Your task to perform on an android device: toggle notification dots Image 0: 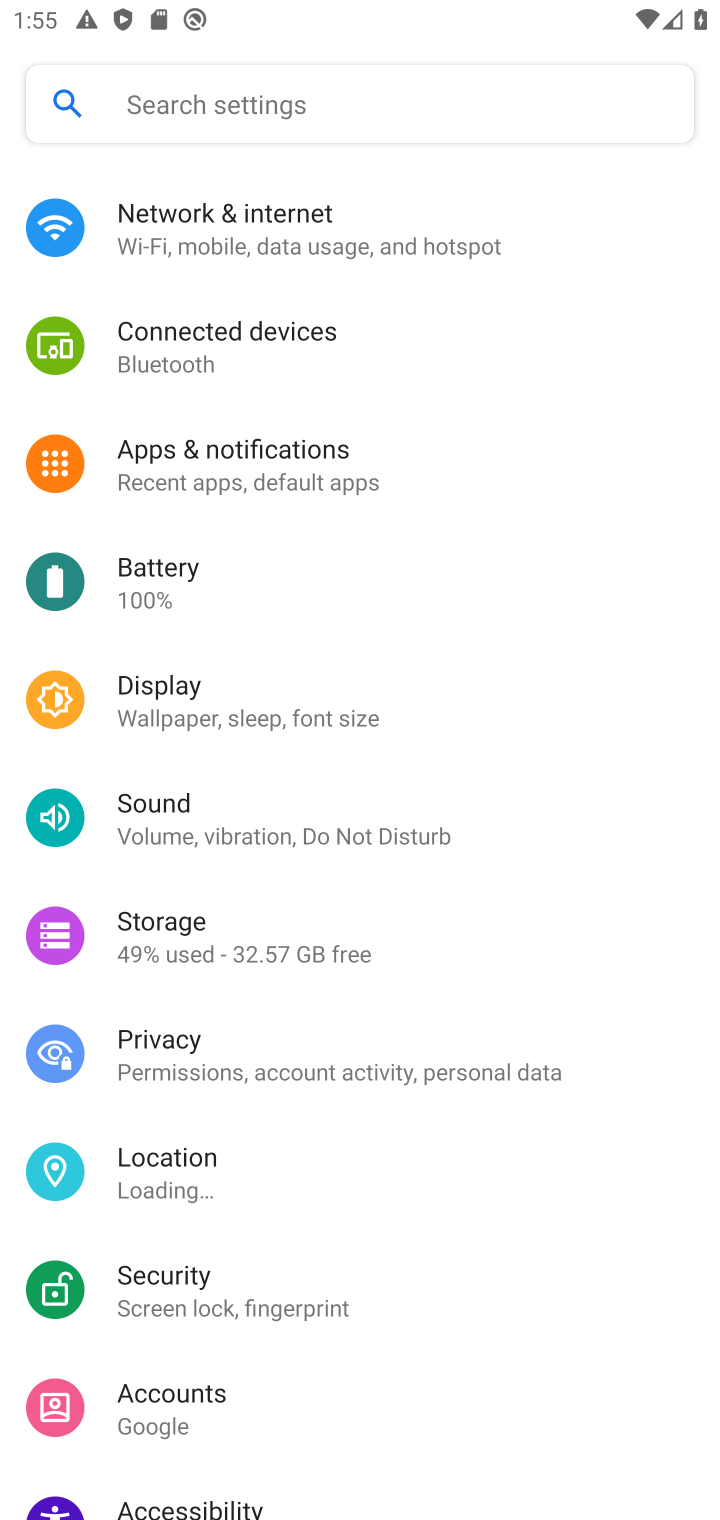
Step 0: press home button
Your task to perform on an android device: toggle notification dots Image 1: 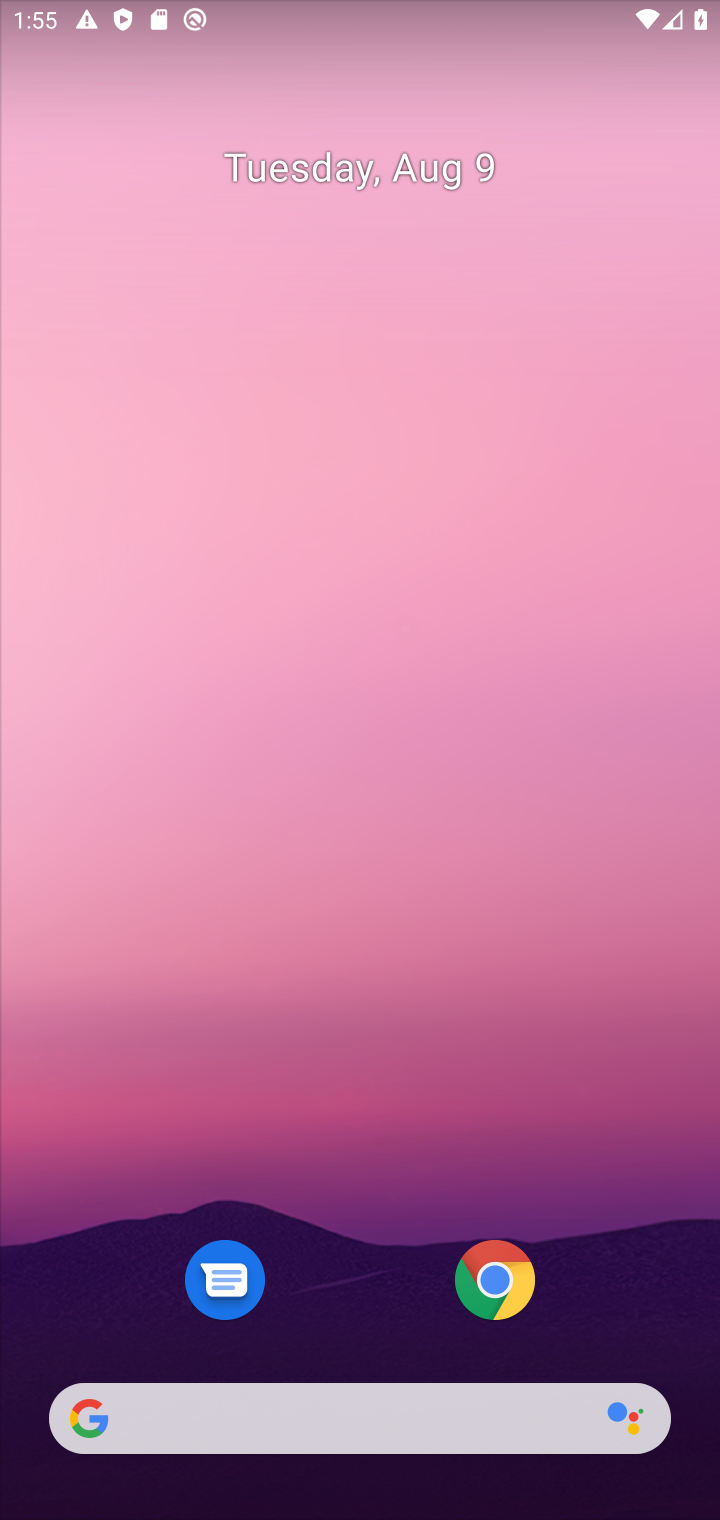
Step 1: drag from (355, 1416) to (438, 153)
Your task to perform on an android device: toggle notification dots Image 2: 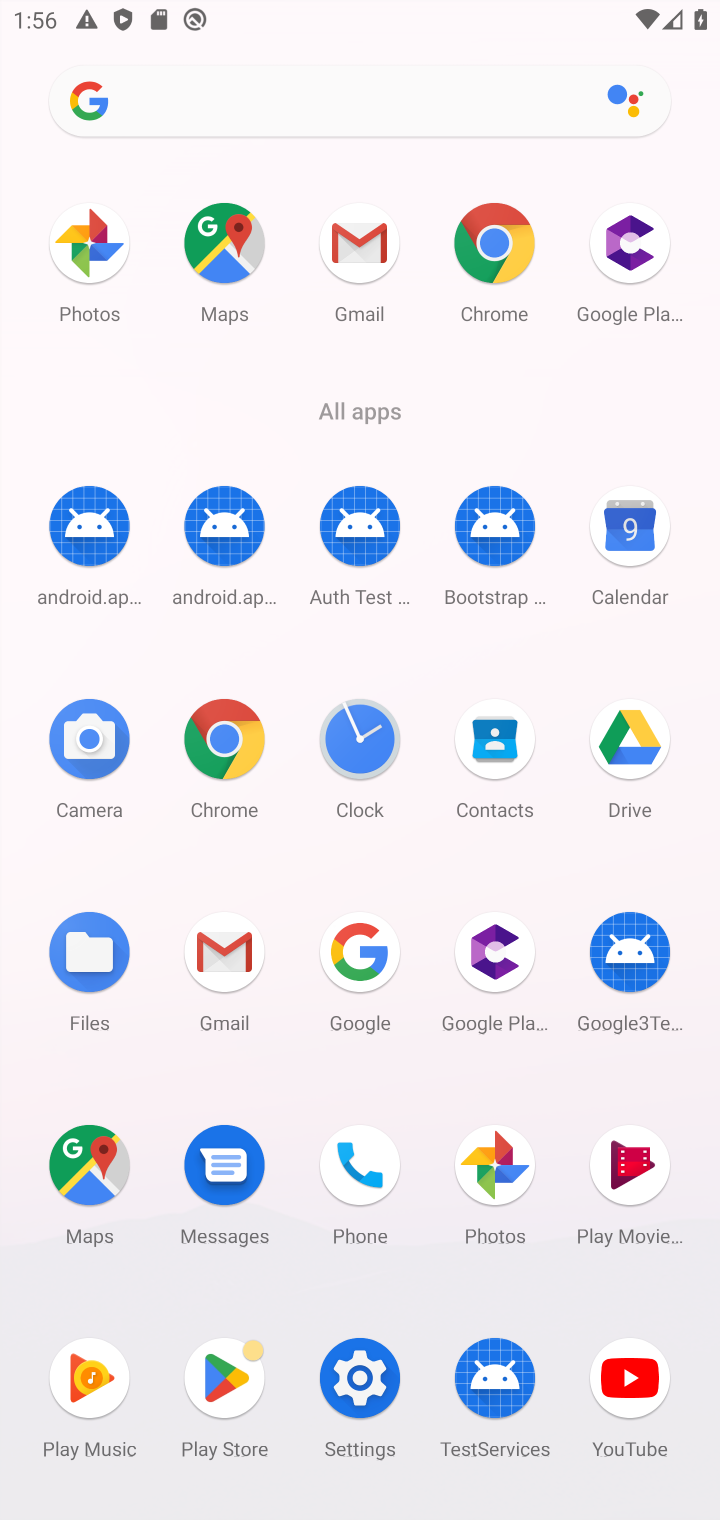
Step 2: click (354, 1380)
Your task to perform on an android device: toggle notification dots Image 3: 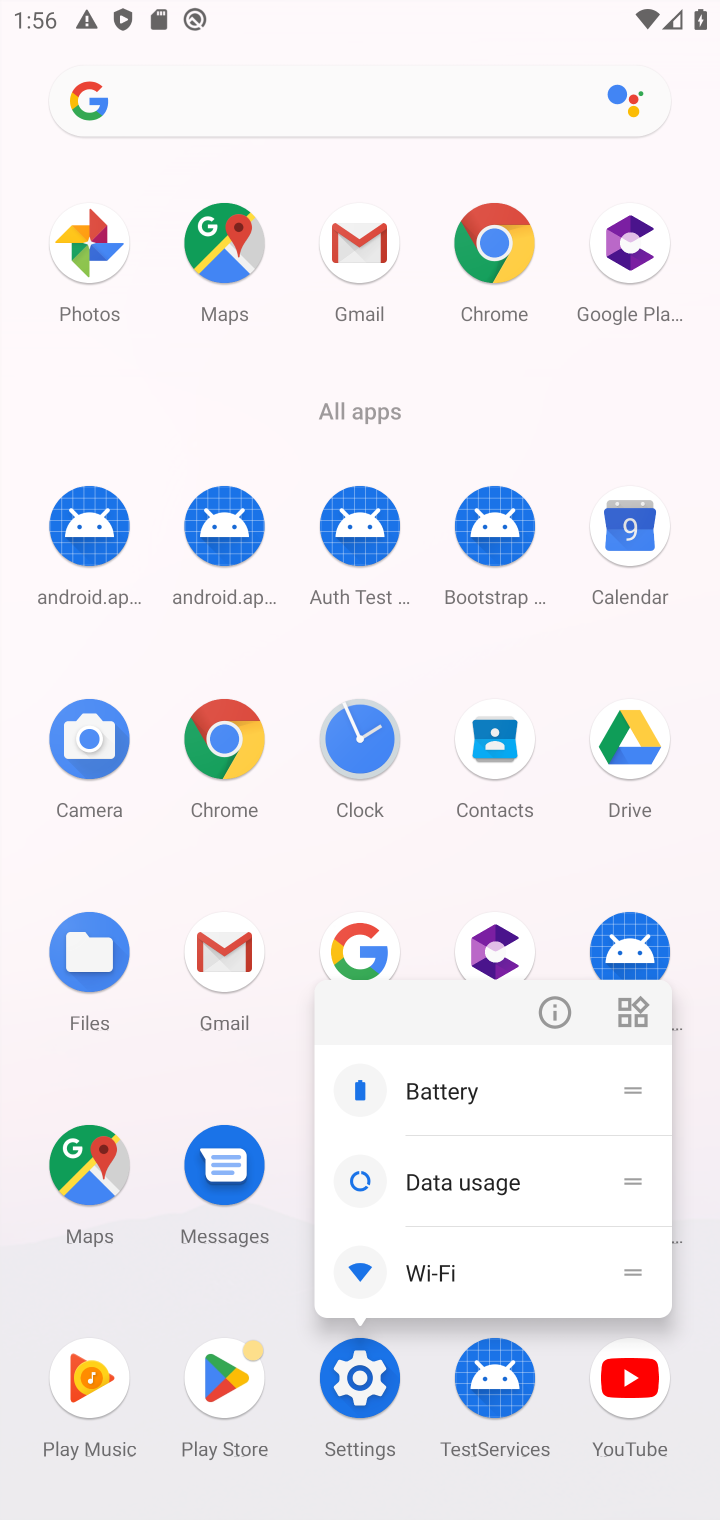
Step 3: click (354, 1383)
Your task to perform on an android device: toggle notification dots Image 4: 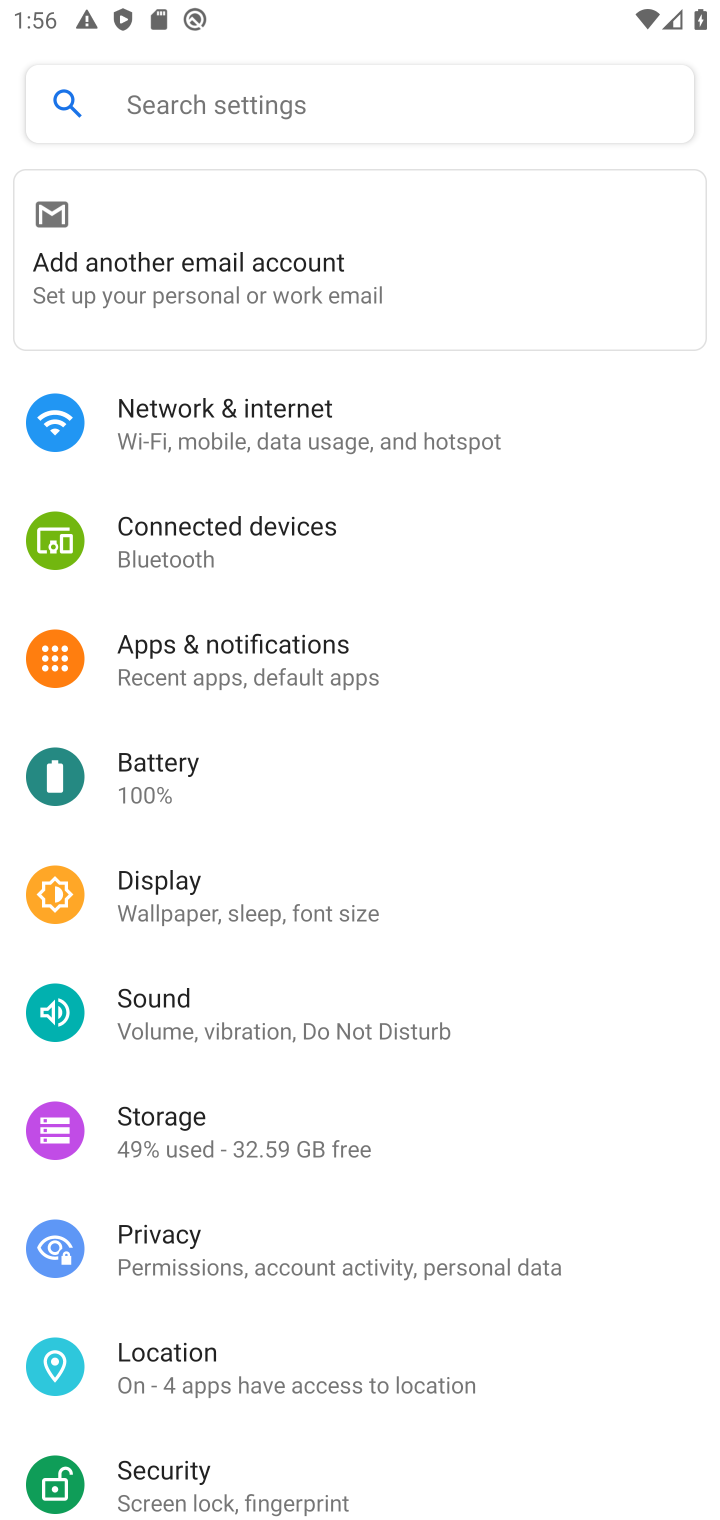
Step 4: click (248, 677)
Your task to perform on an android device: toggle notification dots Image 5: 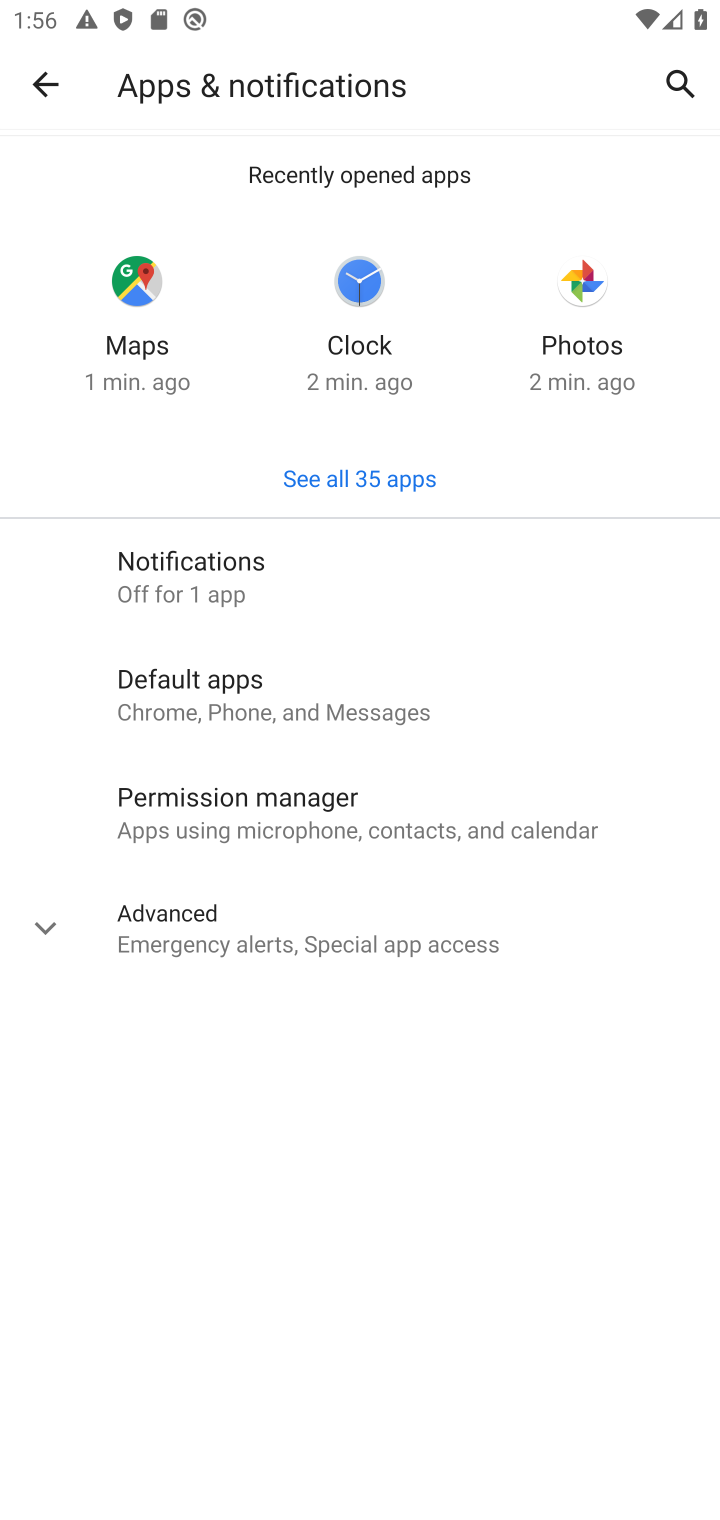
Step 5: click (213, 576)
Your task to perform on an android device: toggle notification dots Image 6: 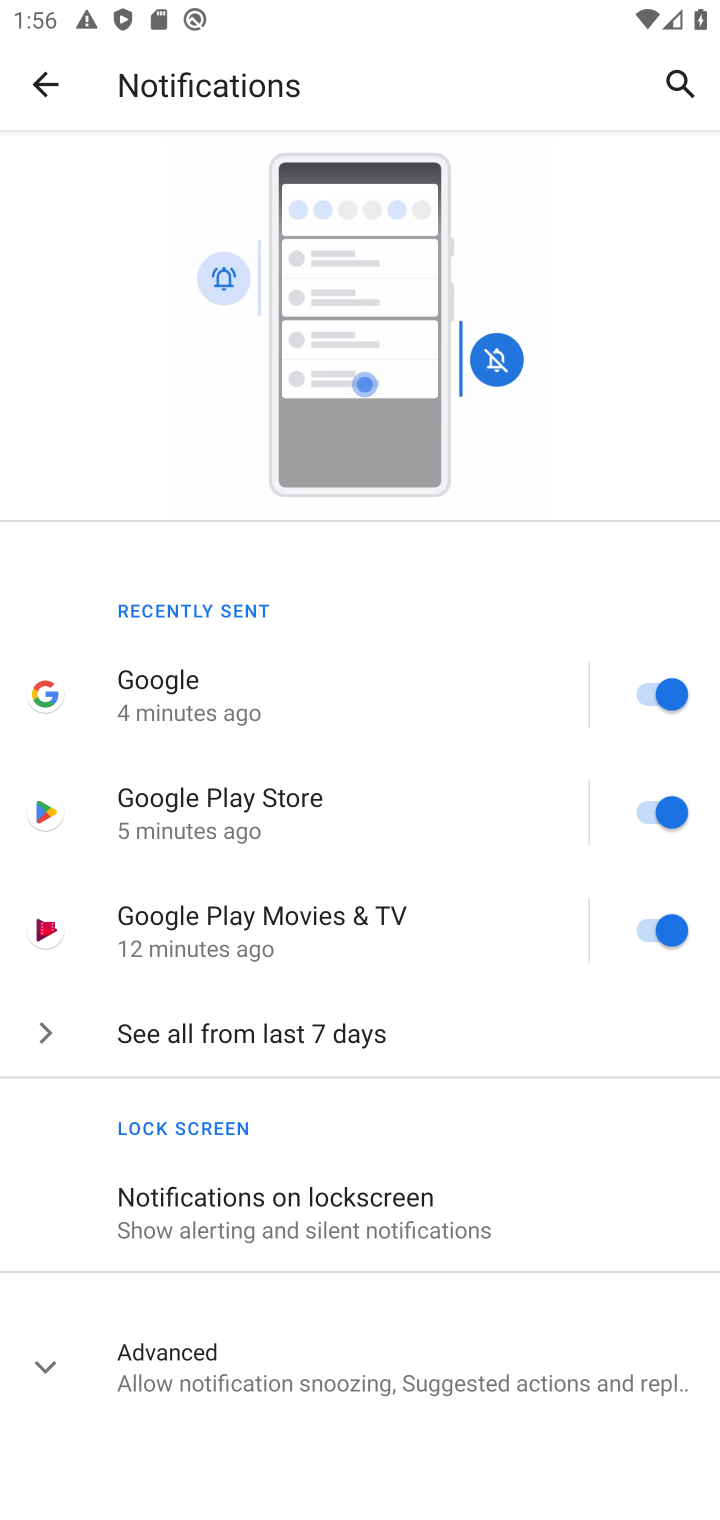
Step 6: drag from (291, 1317) to (434, 432)
Your task to perform on an android device: toggle notification dots Image 7: 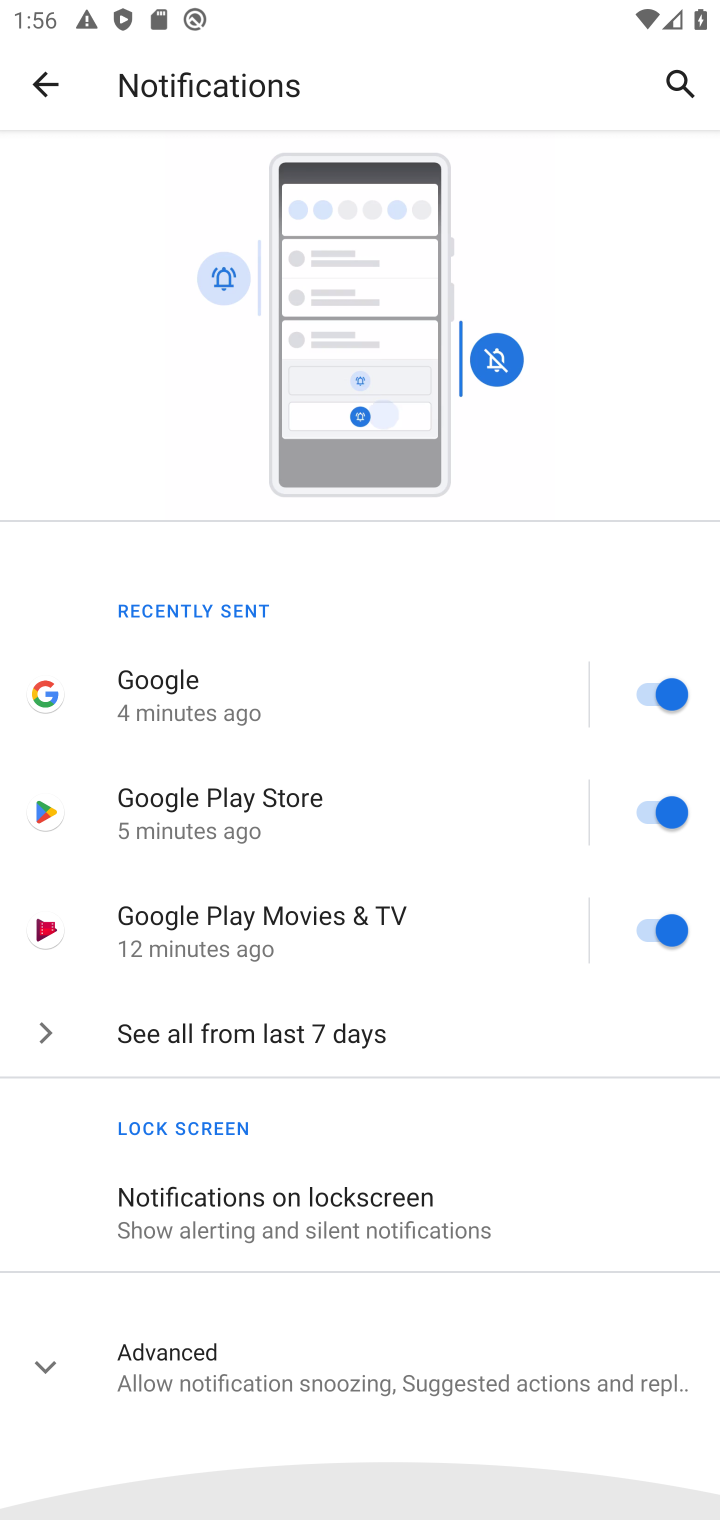
Step 7: click (237, 1330)
Your task to perform on an android device: toggle notification dots Image 8: 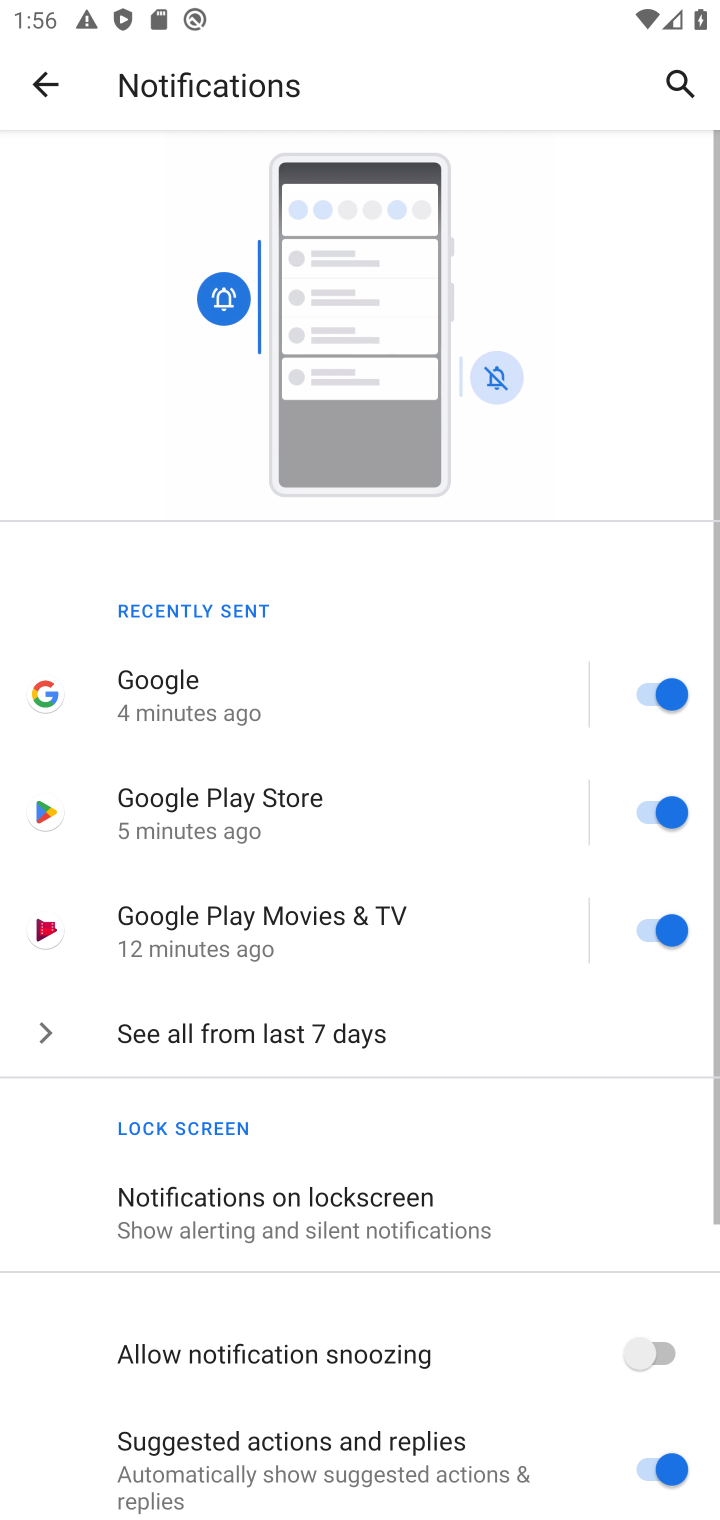
Step 8: drag from (368, 1335) to (612, 370)
Your task to perform on an android device: toggle notification dots Image 9: 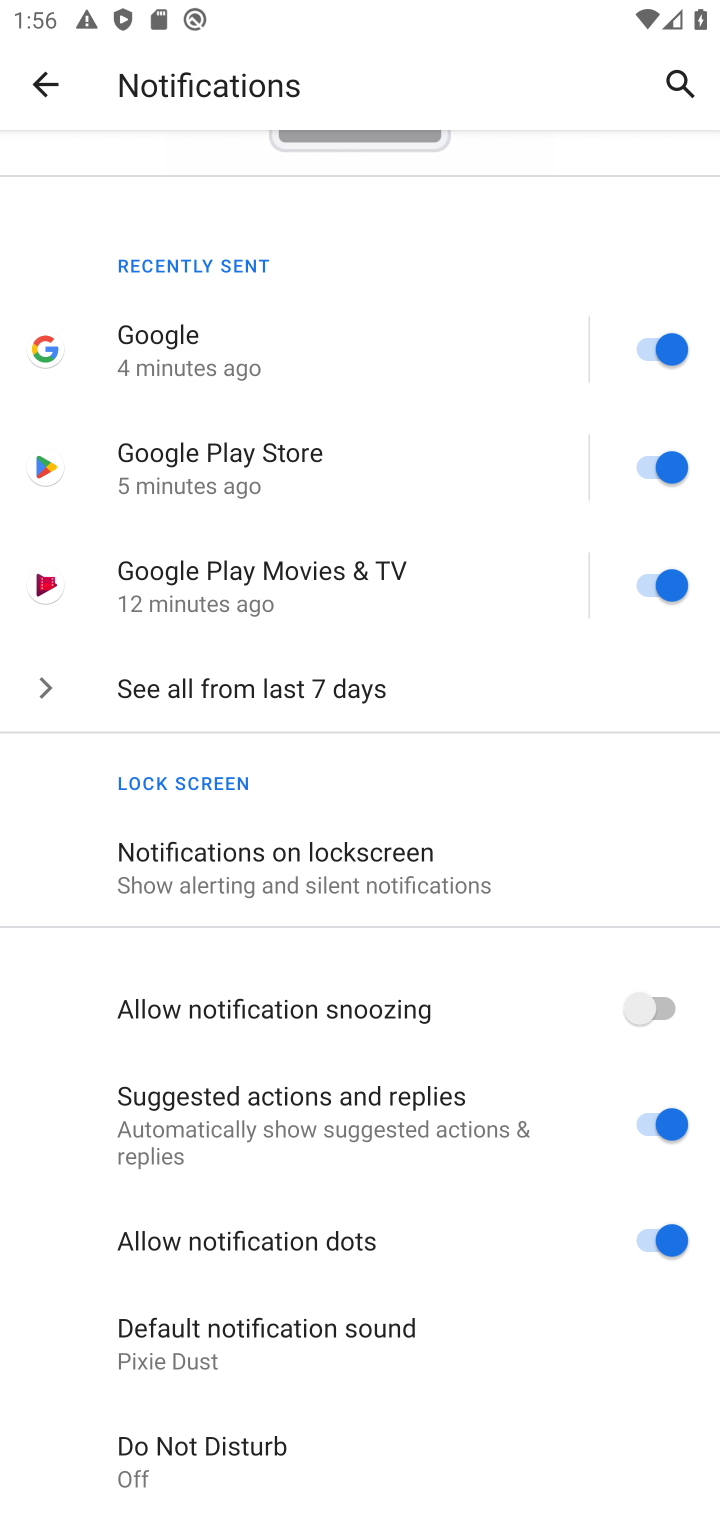
Step 9: click (651, 1242)
Your task to perform on an android device: toggle notification dots Image 10: 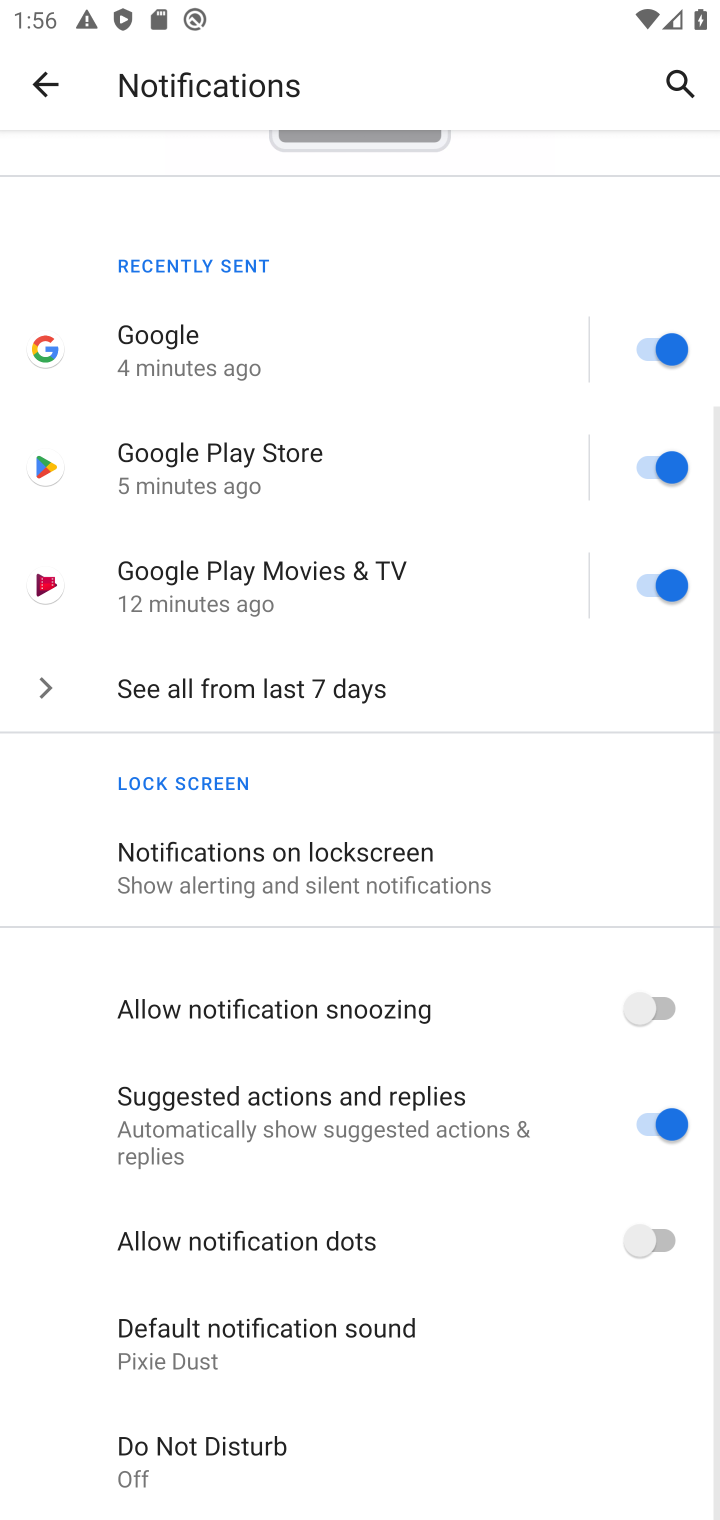
Step 10: task complete